Your task to perform on an android device: Open network settings Image 0: 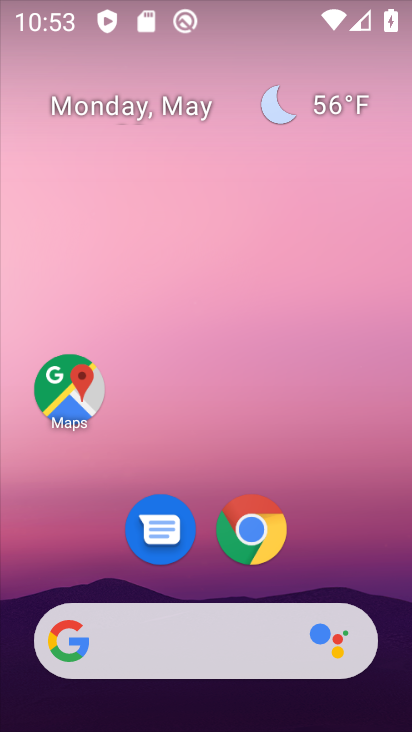
Step 0: drag from (317, 558) to (226, 130)
Your task to perform on an android device: Open network settings Image 1: 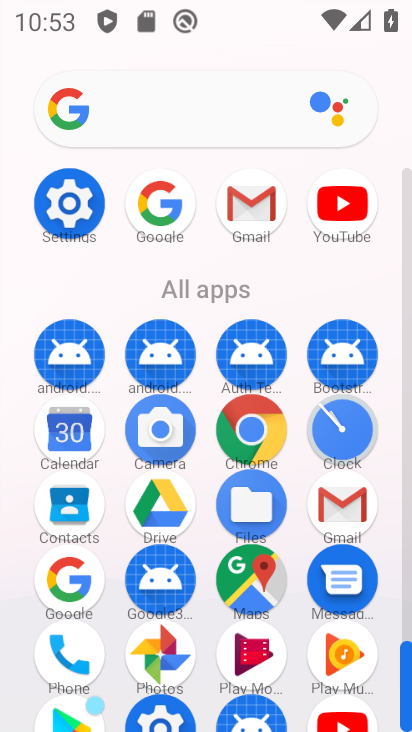
Step 1: click (69, 204)
Your task to perform on an android device: Open network settings Image 2: 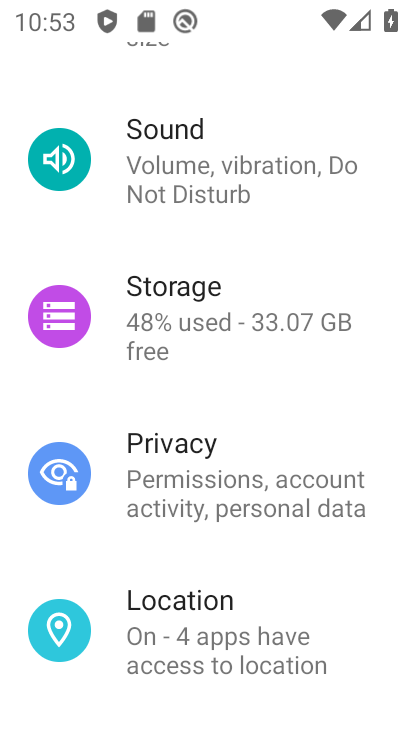
Step 2: drag from (191, 566) to (269, 439)
Your task to perform on an android device: Open network settings Image 3: 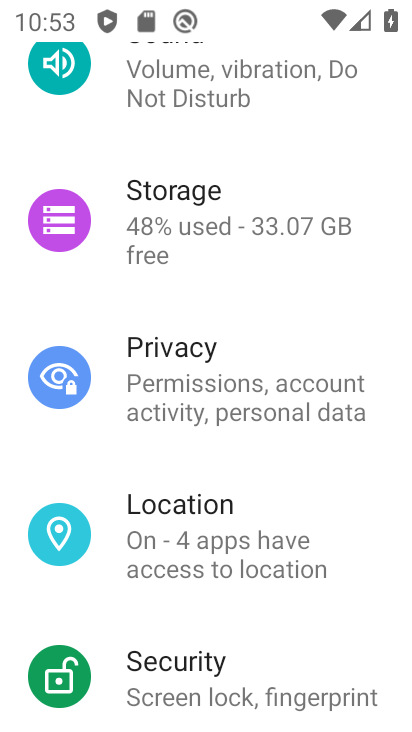
Step 3: drag from (188, 472) to (295, 344)
Your task to perform on an android device: Open network settings Image 4: 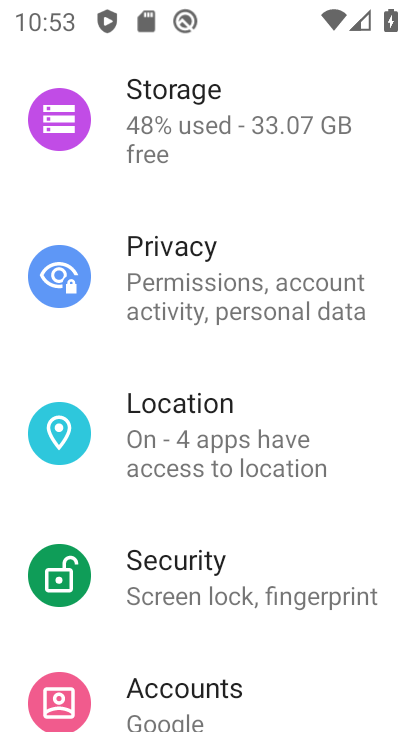
Step 4: drag from (224, 225) to (241, 519)
Your task to perform on an android device: Open network settings Image 5: 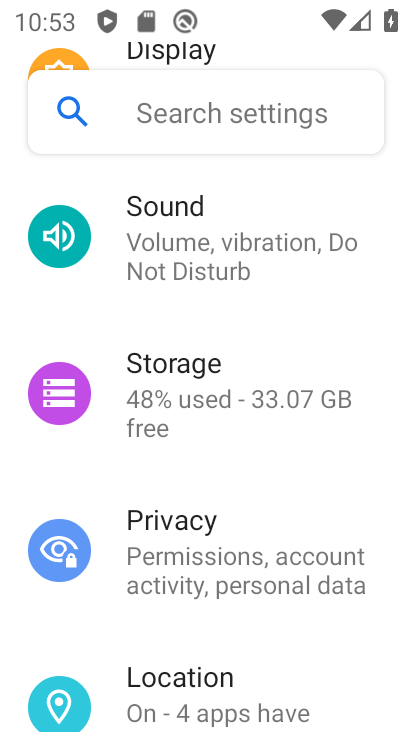
Step 5: drag from (250, 173) to (245, 403)
Your task to perform on an android device: Open network settings Image 6: 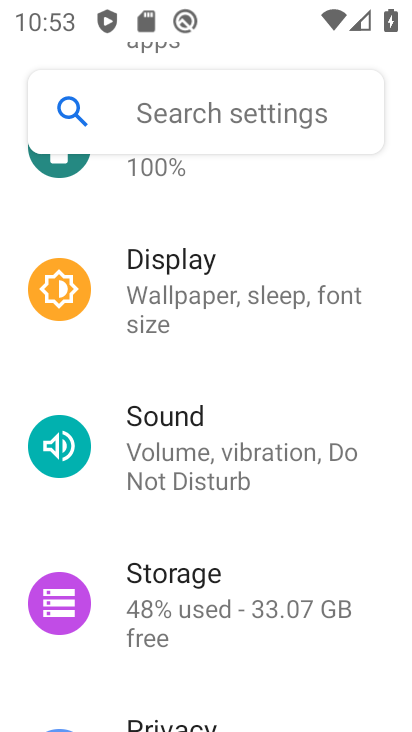
Step 6: drag from (234, 234) to (277, 512)
Your task to perform on an android device: Open network settings Image 7: 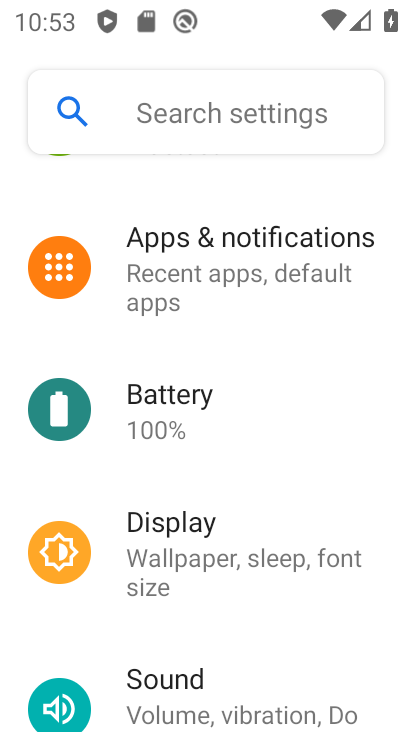
Step 7: drag from (249, 212) to (306, 429)
Your task to perform on an android device: Open network settings Image 8: 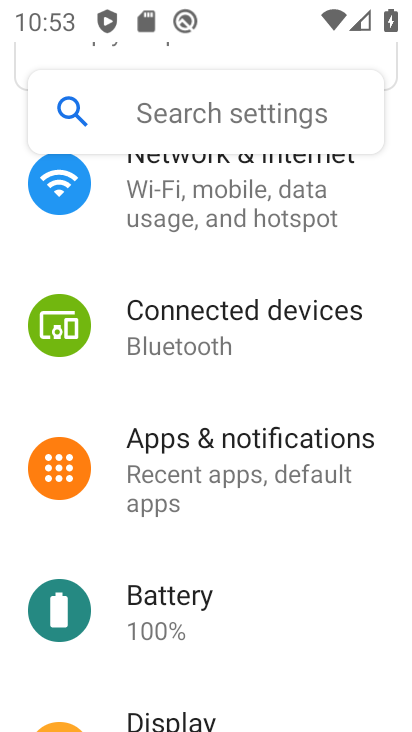
Step 8: drag from (257, 251) to (304, 371)
Your task to perform on an android device: Open network settings Image 9: 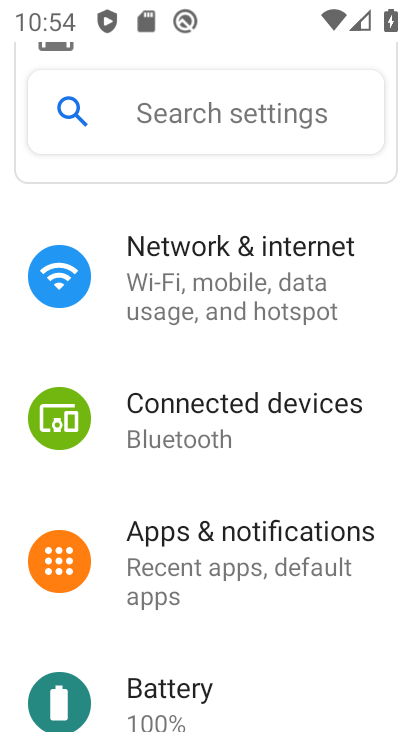
Step 9: click (250, 233)
Your task to perform on an android device: Open network settings Image 10: 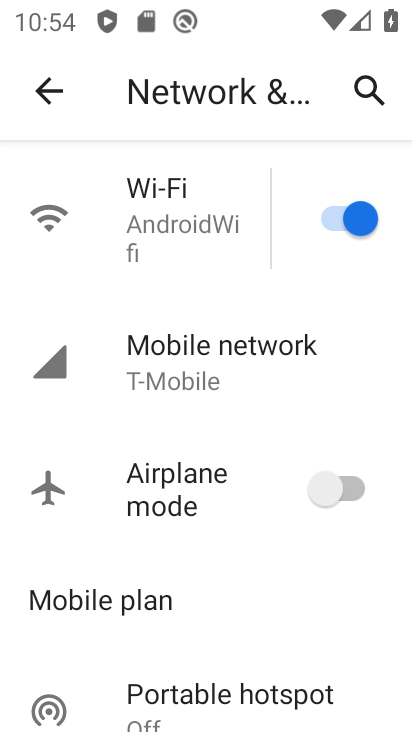
Step 10: task complete